Your task to perform on an android device: find photos in the google photos app Image 0: 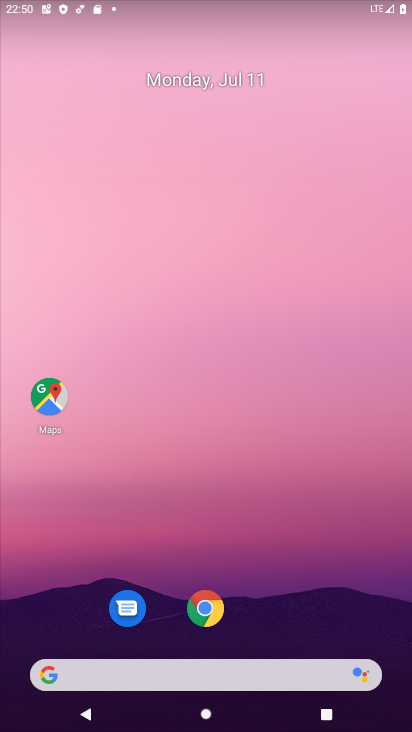
Step 0: drag from (56, 693) to (350, 17)
Your task to perform on an android device: find photos in the google photos app Image 1: 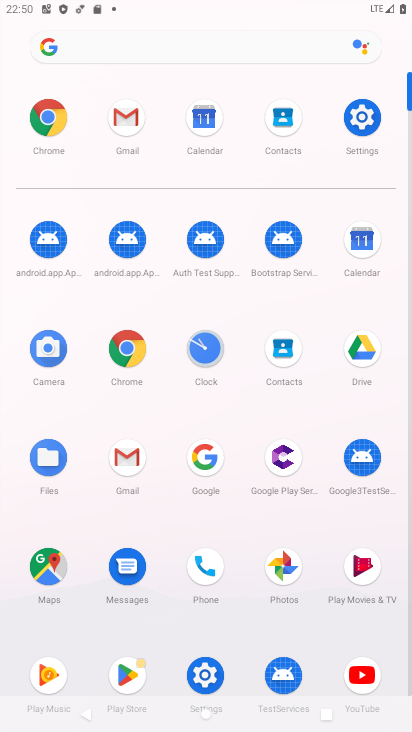
Step 1: click (275, 573)
Your task to perform on an android device: find photos in the google photos app Image 2: 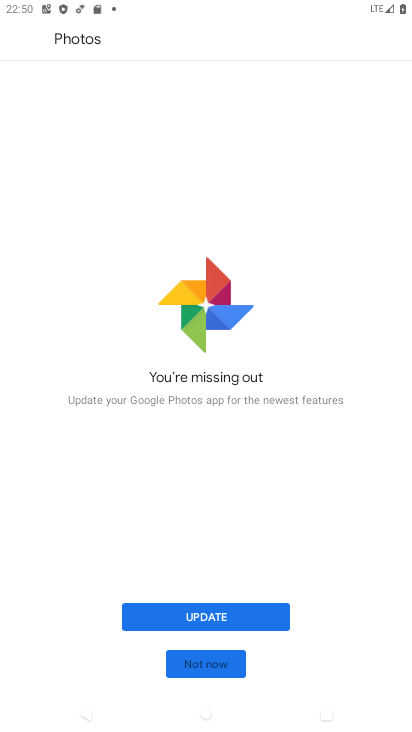
Step 2: click (193, 670)
Your task to perform on an android device: find photos in the google photos app Image 3: 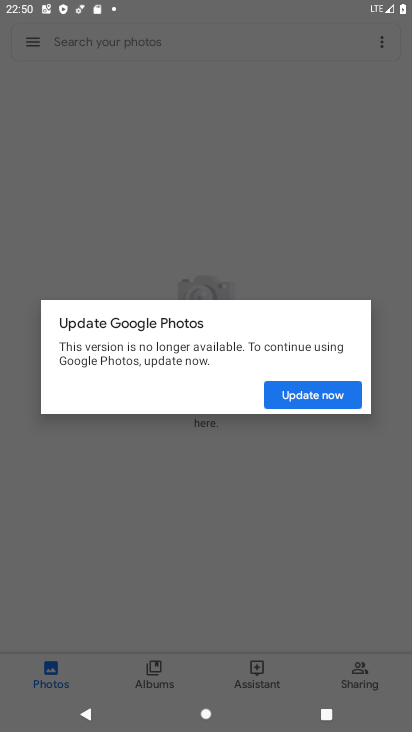
Step 3: task complete